Your task to perform on an android device: set the stopwatch Image 0: 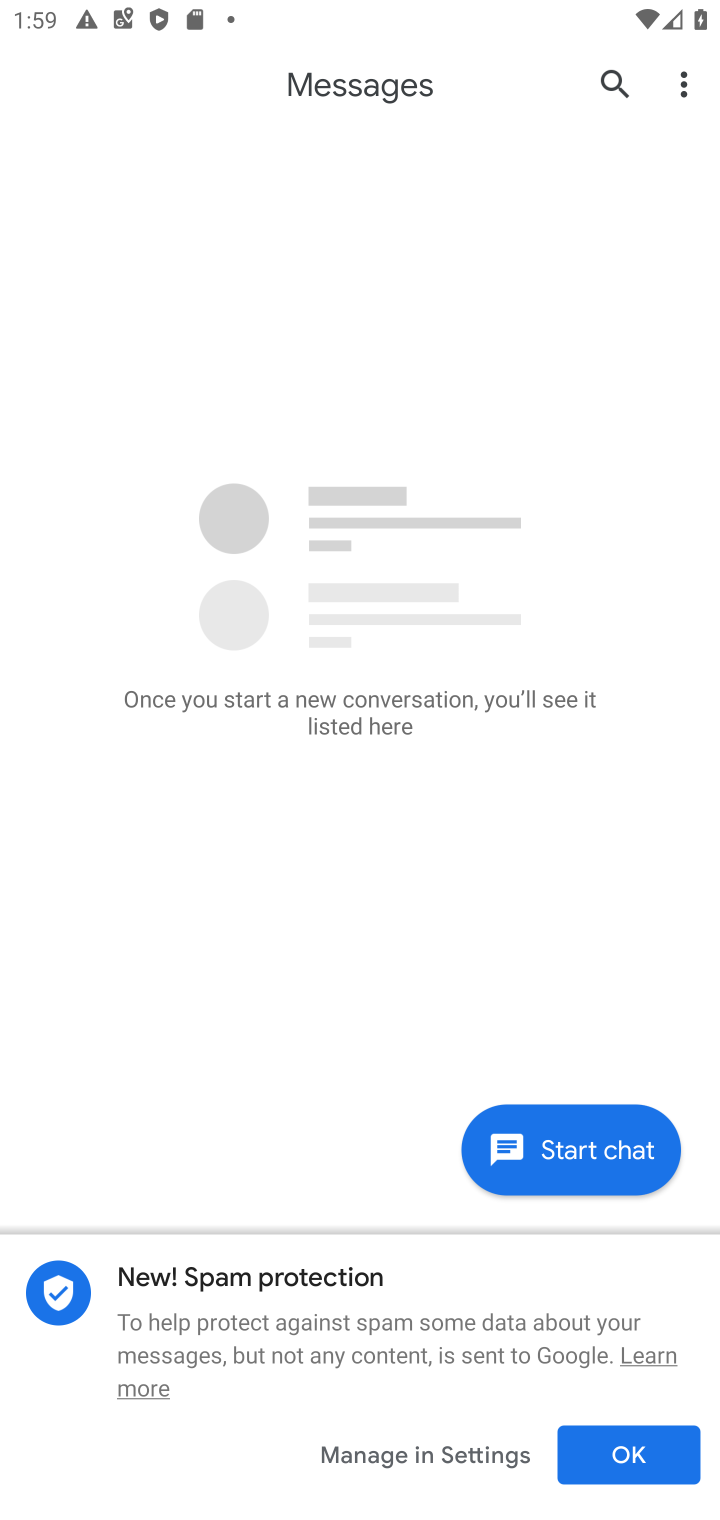
Step 0: press home button
Your task to perform on an android device: set the stopwatch Image 1: 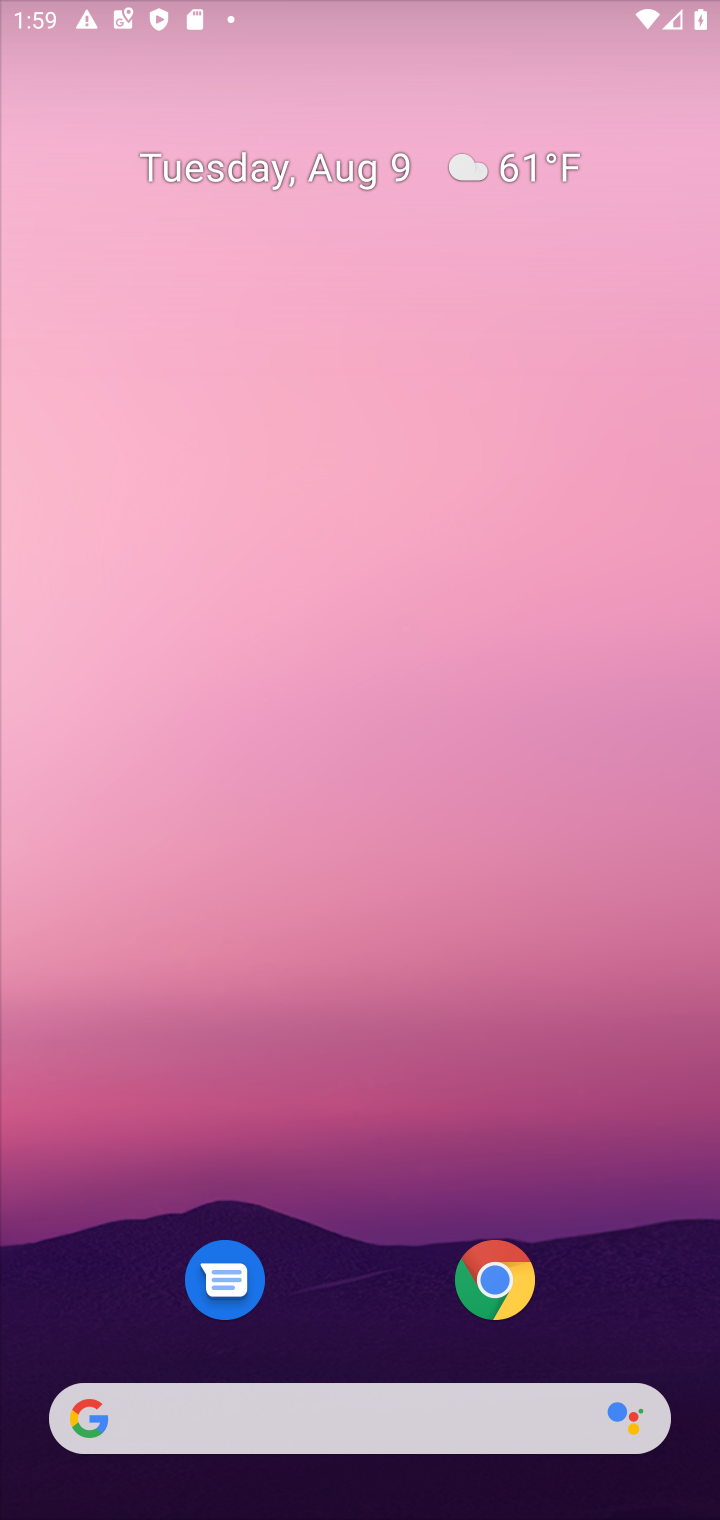
Step 1: drag from (357, 1398) to (514, 129)
Your task to perform on an android device: set the stopwatch Image 2: 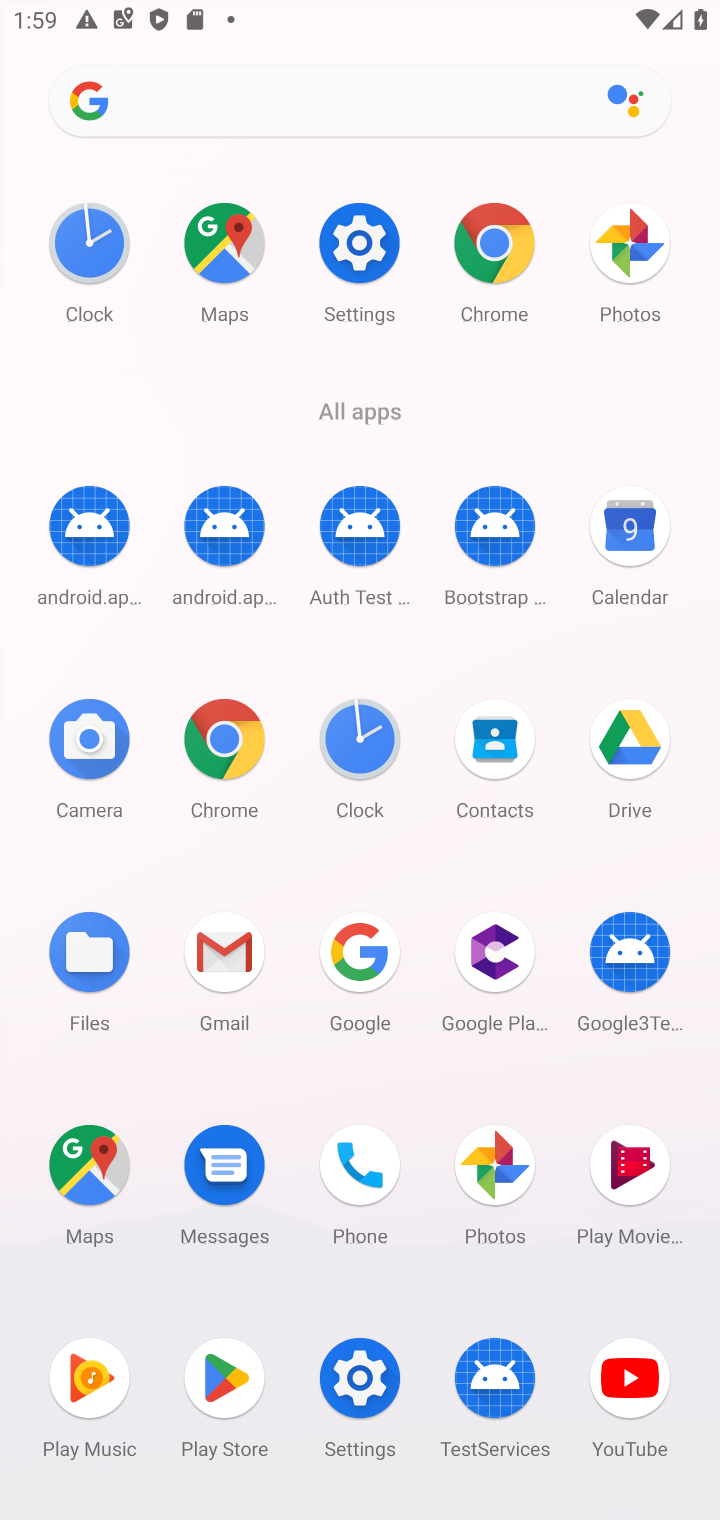
Step 2: click (359, 737)
Your task to perform on an android device: set the stopwatch Image 3: 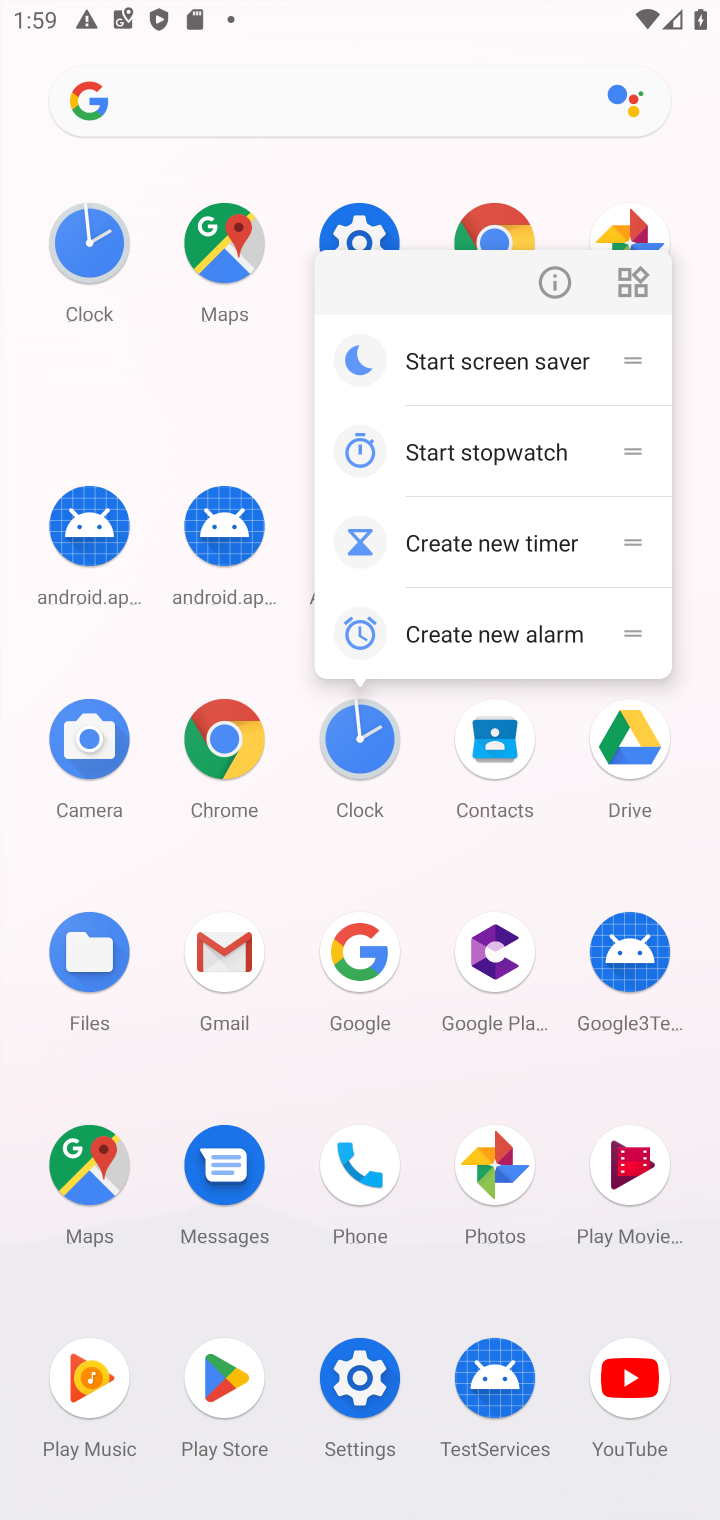
Step 3: click (359, 749)
Your task to perform on an android device: set the stopwatch Image 4: 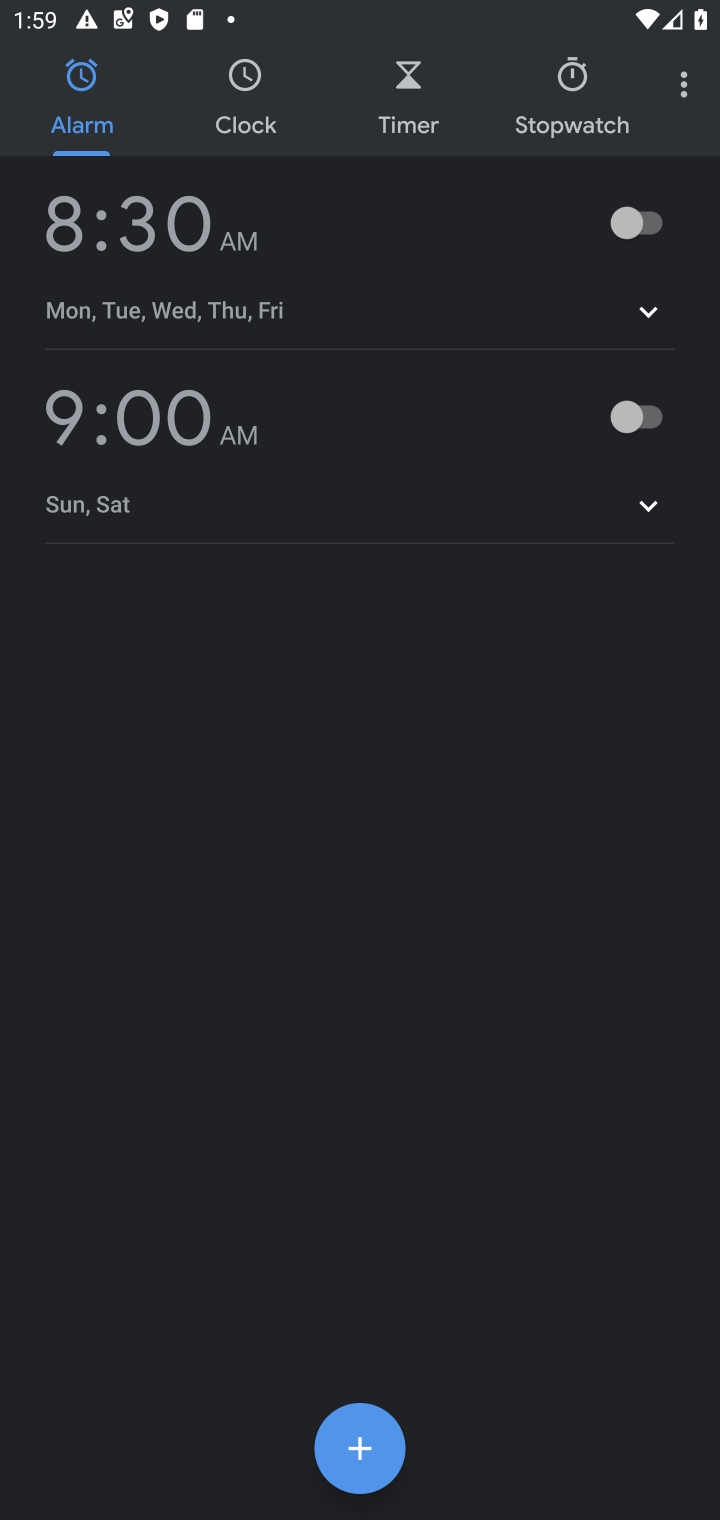
Step 4: click (543, 79)
Your task to perform on an android device: set the stopwatch Image 5: 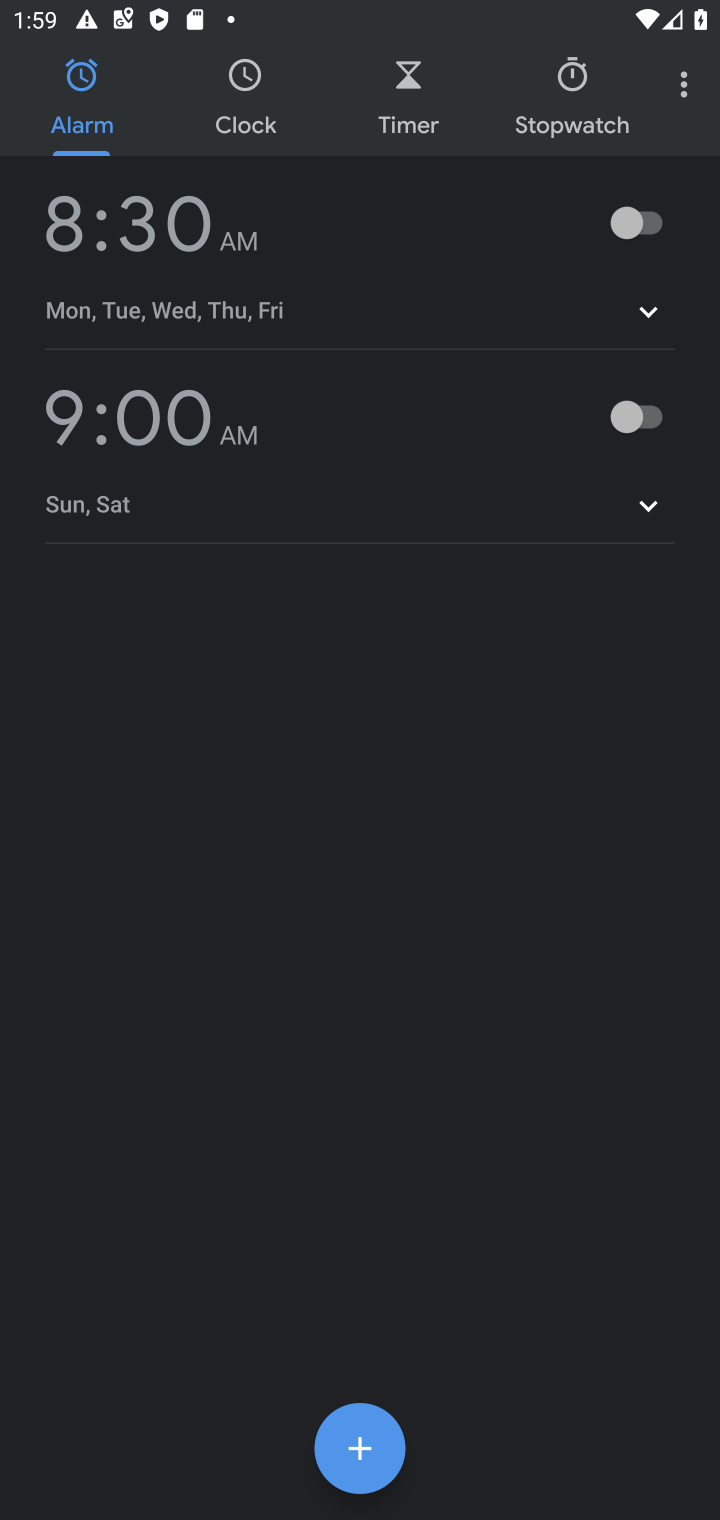
Step 5: click (576, 89)
Your task to perform on an android device: set the stopwatch Image 6: 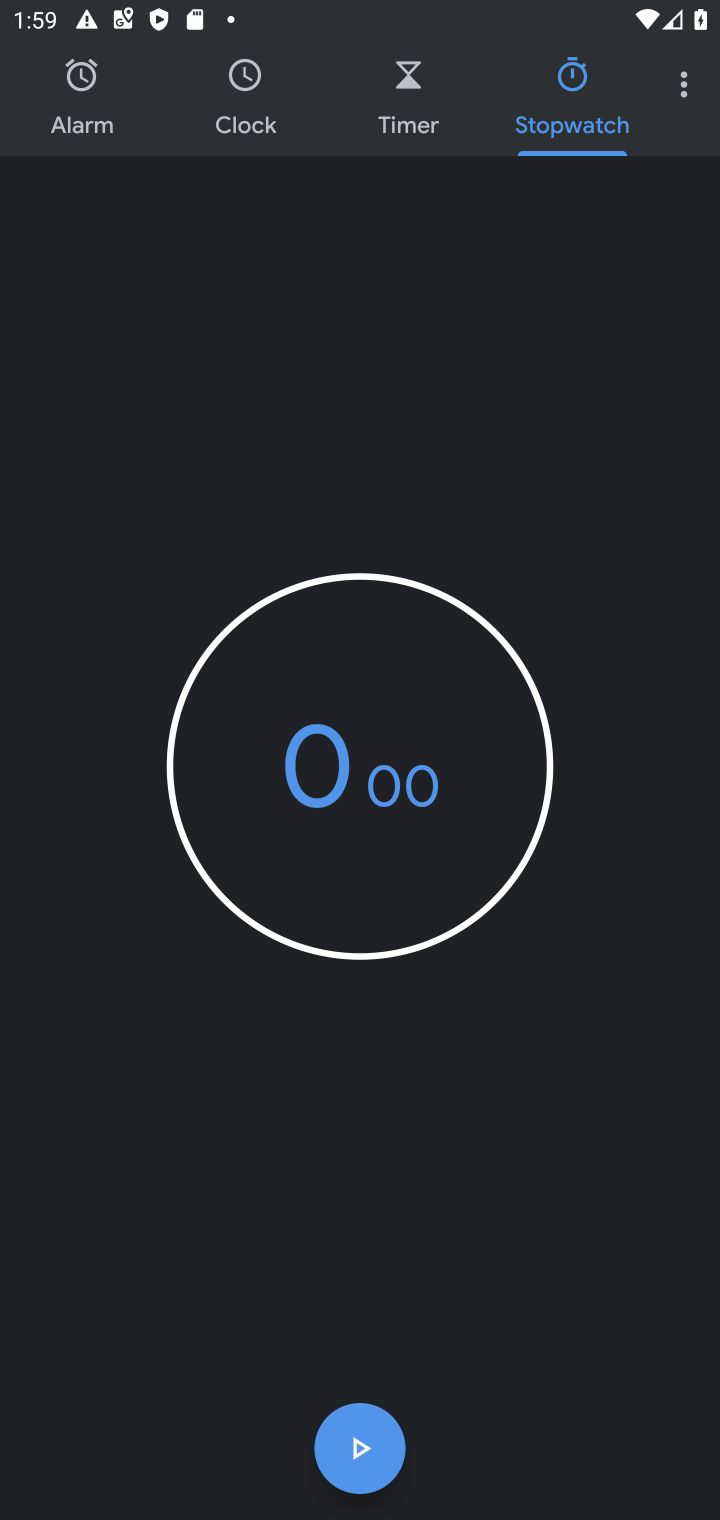
Step 6: click (382, 770)
Your task to perform on an android device: set the stopwatch Image 7: 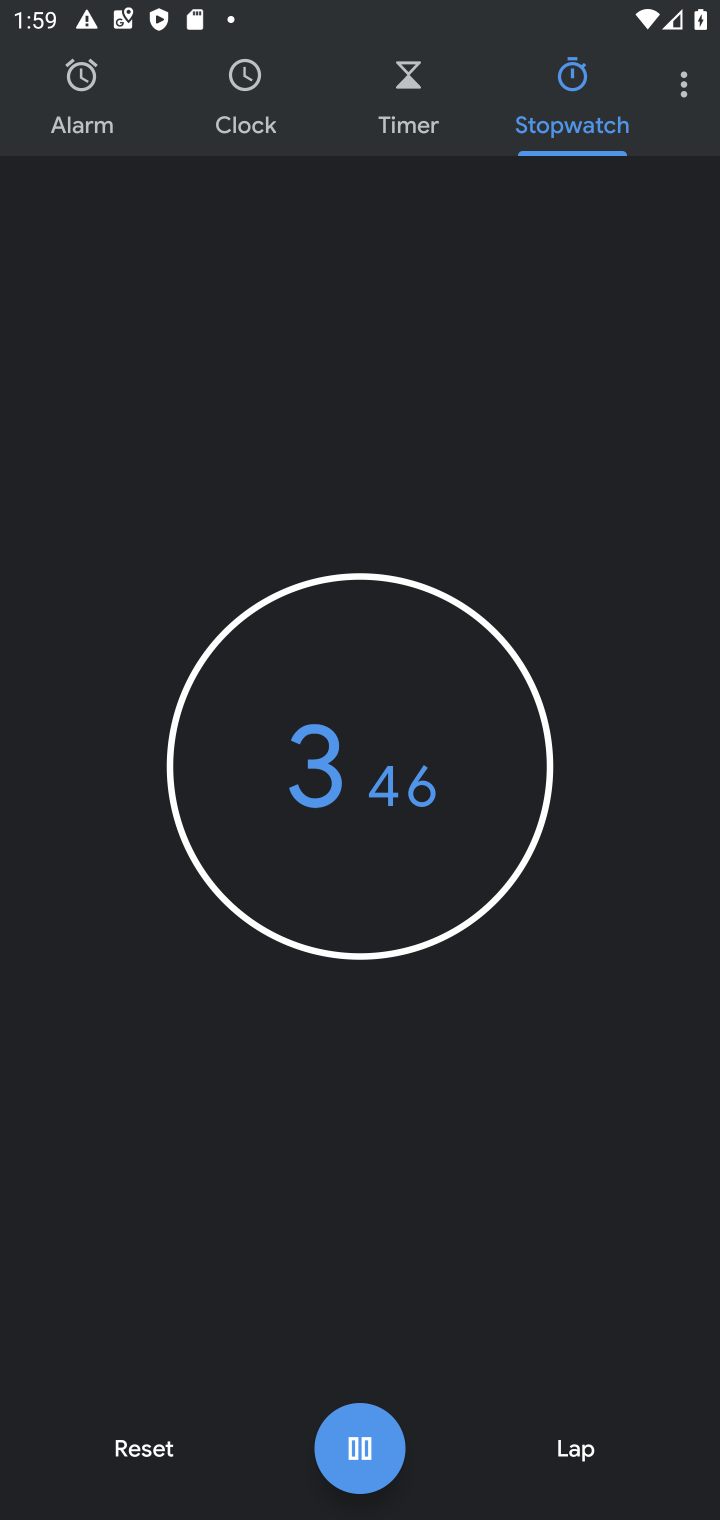
Step 7: click (376, 759)
Your task to perform on an android device: set the stopwatch Image 8: 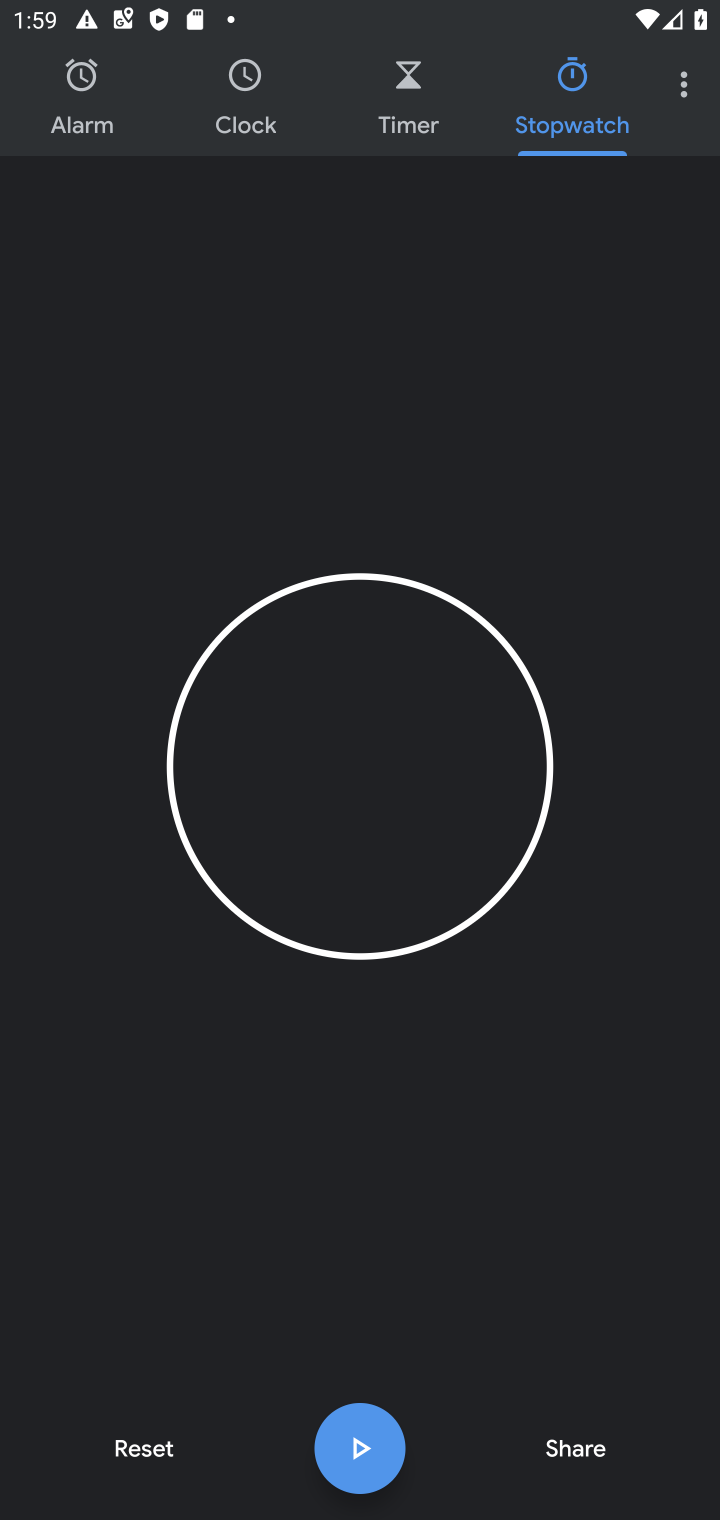
Step 8: task complete